Your task to perform on an android device: Open the web browser Image 0: 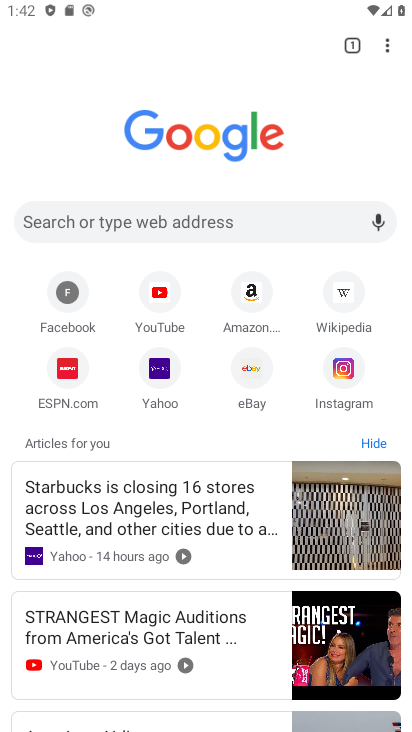
Step 0: drag from (147, 633) to (182, 429)
Your task to perform on an android device: Open the web browser Image 1: 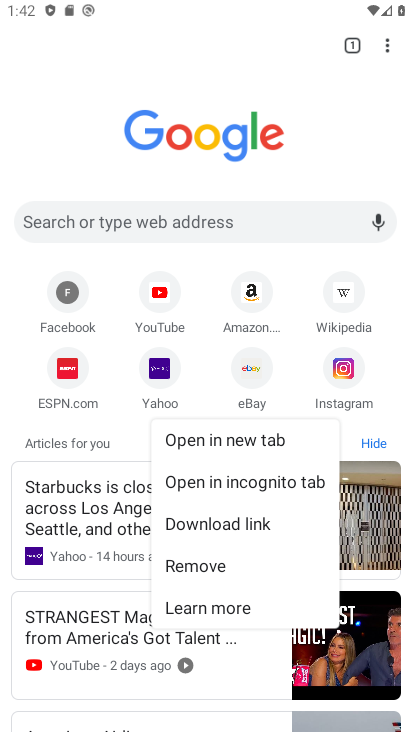
Step 1: press home button
Your task to perform on an android device: Open the web browser Image 2: 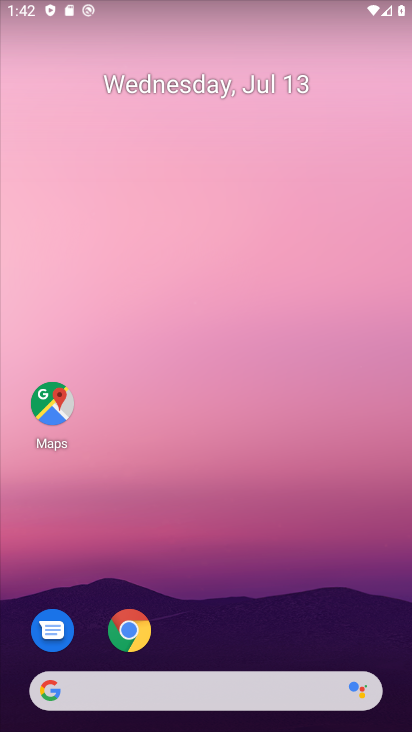
Step 2: drag from (198, 639) to (181, 216)
Your task to perform on an android device: Open the web browser Image 3: 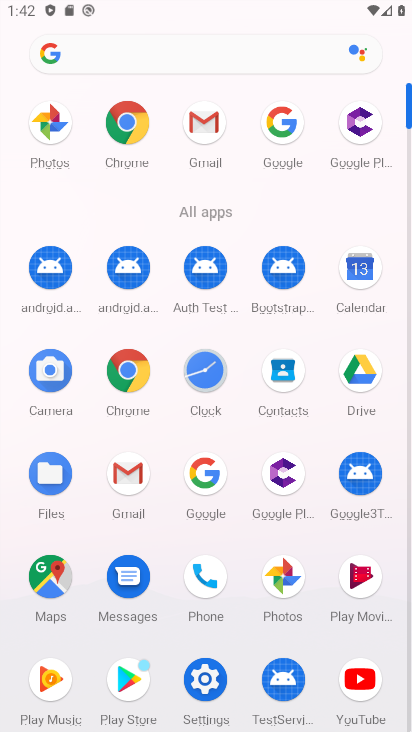
Step 3: click (149, 138)
Your task to perform on an android device: Open the web browser Image 4: 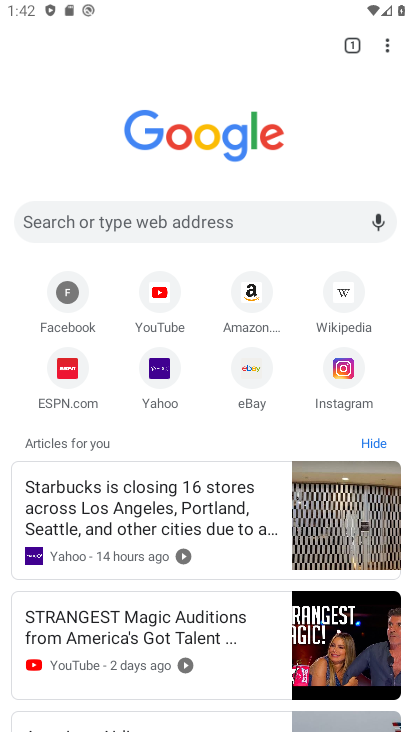
Step 4: task complete